Your task to perform on an android device: open app "Reddit" (install if not already installed) Image 0: 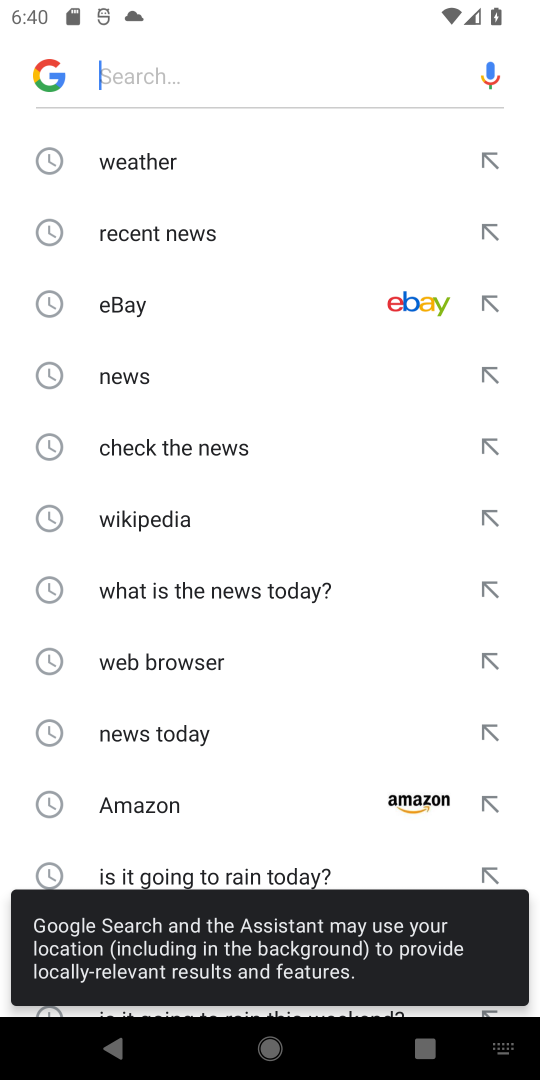
Step 0: press home button
Your task to perform on an android device: open app "Reddit" (install if not already installed) Image 1: 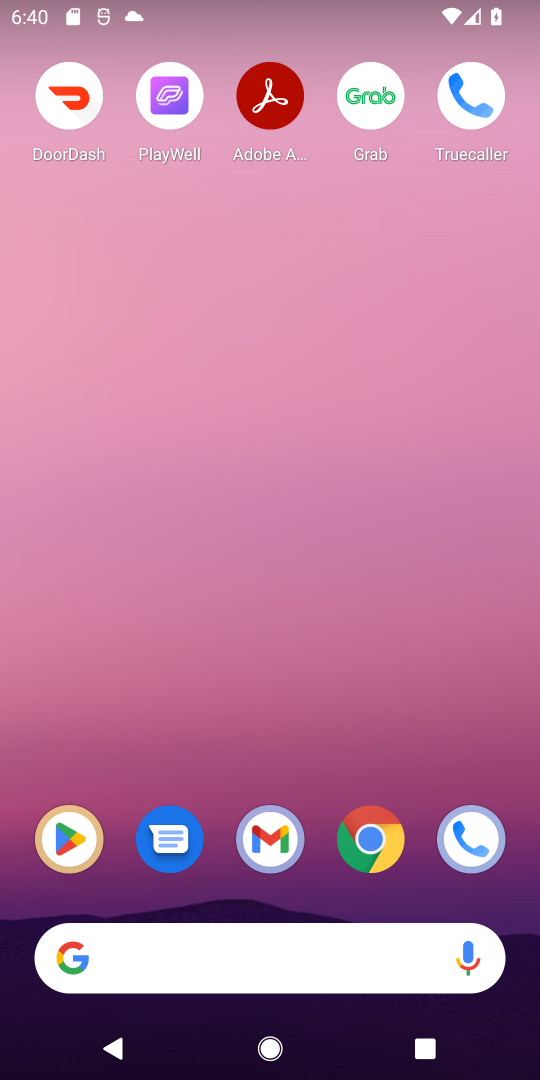
Step 1: click (88, 830)
Your task to perform on an android device: open app "Reddit" (install if not already installed) Image 2: 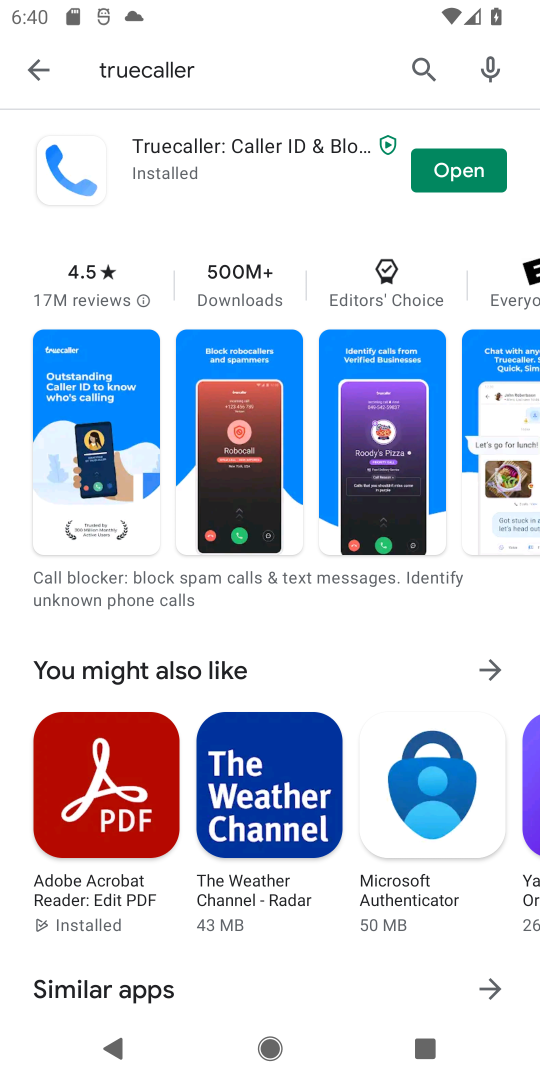
Step 2: click (193, 59)
Your task to perform on an android device: open app "Reddit" (install if not already installed) Image 3: 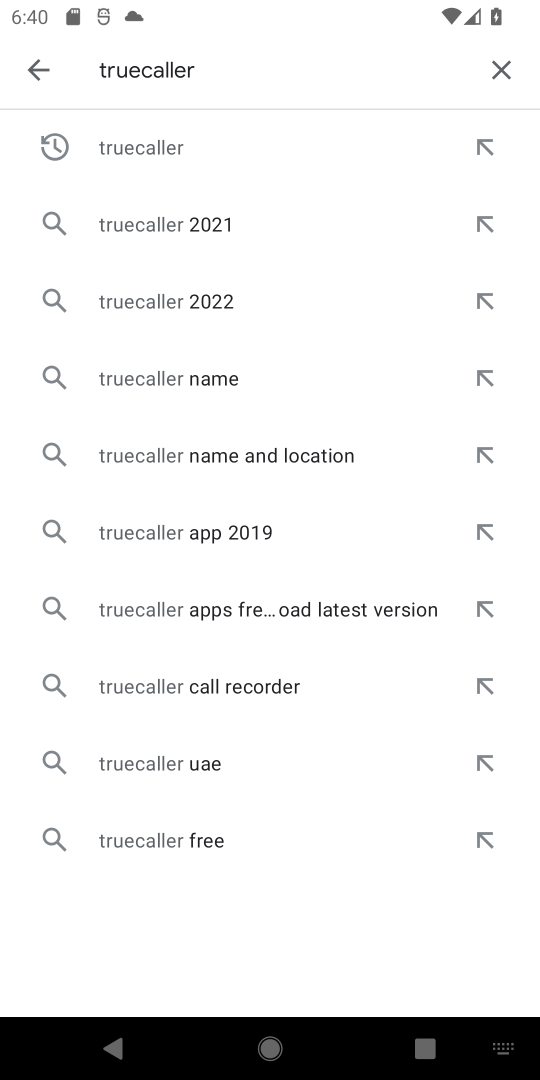
Step 3: click (508, 67)
Your task to perform on an android device: open app "Reddit" (install if not already installed) Image 4: 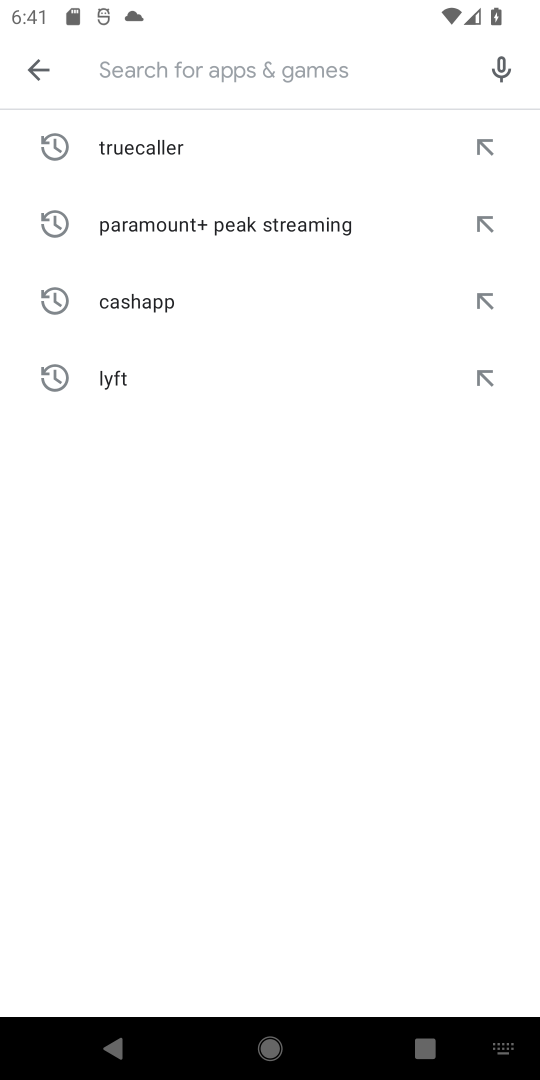
Step 4: type "reddit"
Your task to perform on an android device: open app "Reddit" (install if not already installed) Image 5: 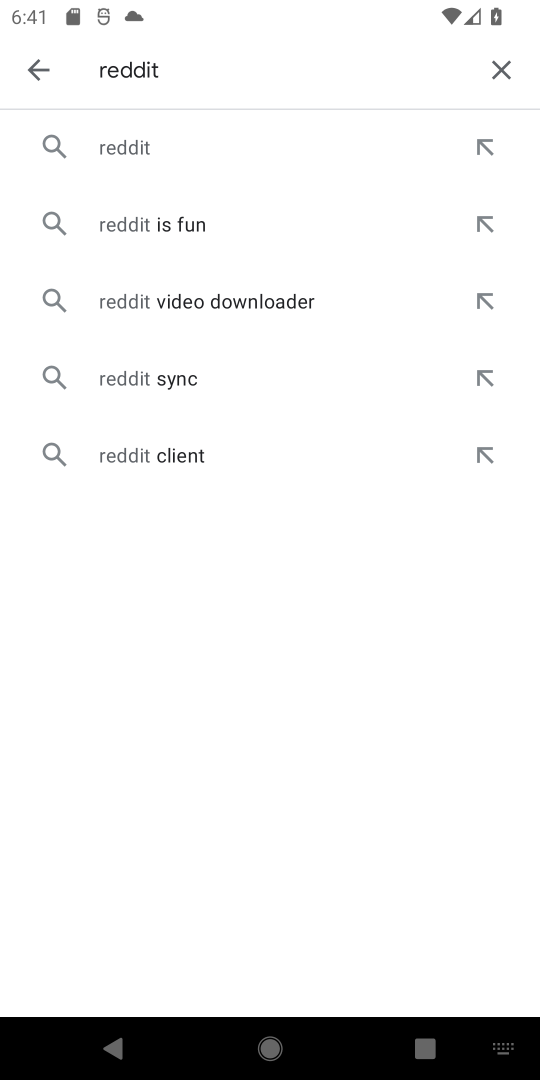
Step 5: click (156, 138)
Your task to perform on an android device: open app "Reddit" (install if not already installed) Image 6: 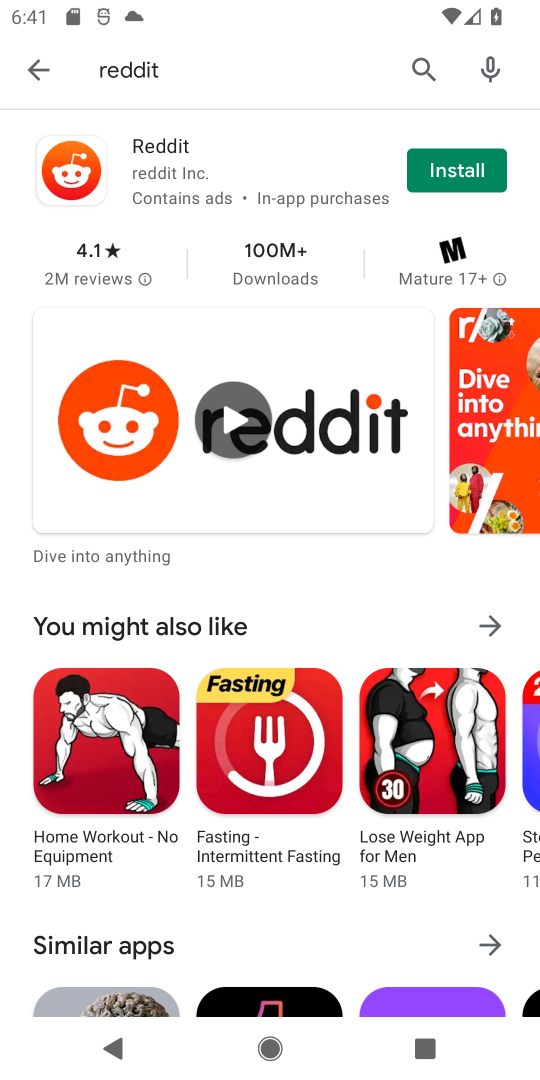
Step 6: click (465, 174)
Your task to perform on an android device: open app "Reddit" (install if not already installed) Image 7: 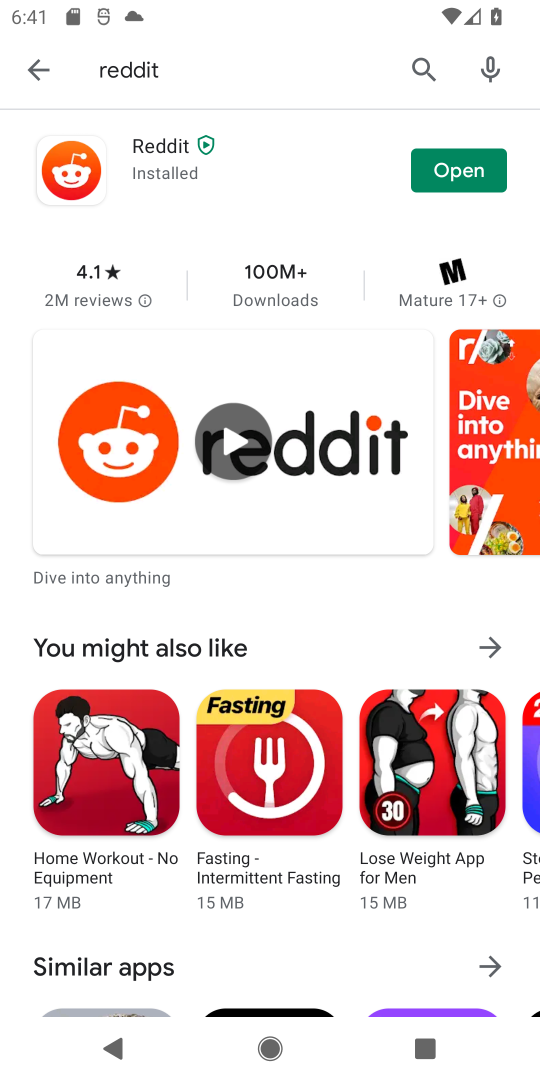
Step 7: click (451, 170)
Your task to perform on an android device: open app "Reddit" (install if not already installed) Image 8: 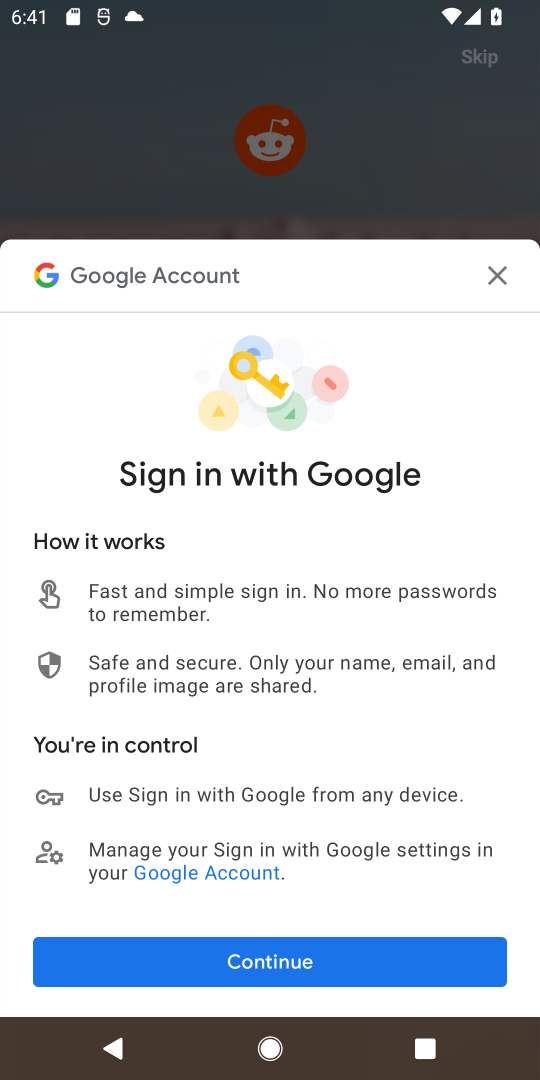
Step 8: click (280, 960)
Your task to perform on an android device: open app "Reddit" (install if not already installed) Image 9: 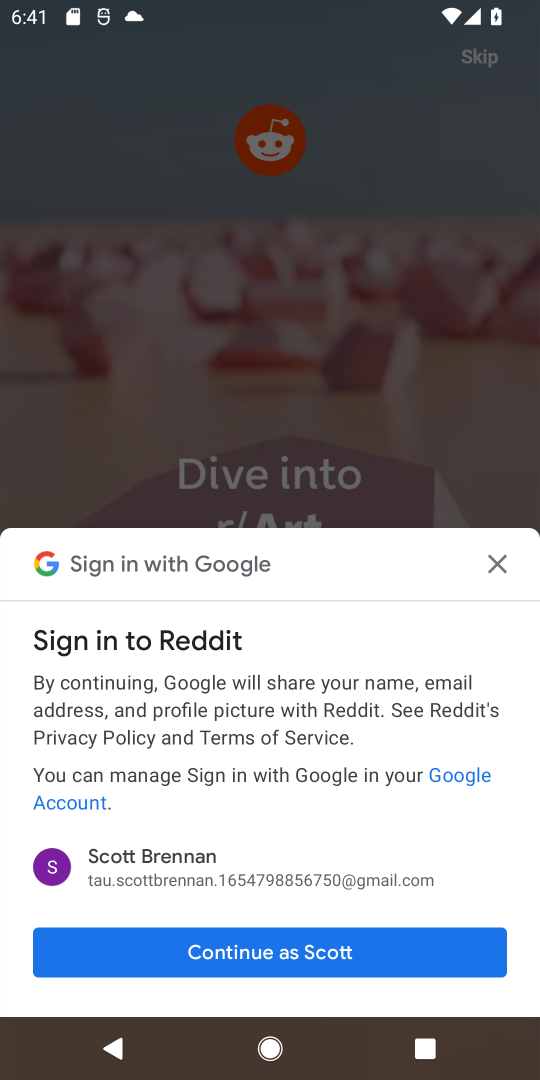
Step 9: click (500, 560)
Your task to perform on an android device: open app "Reddit" (install if not already installed) Image 10: 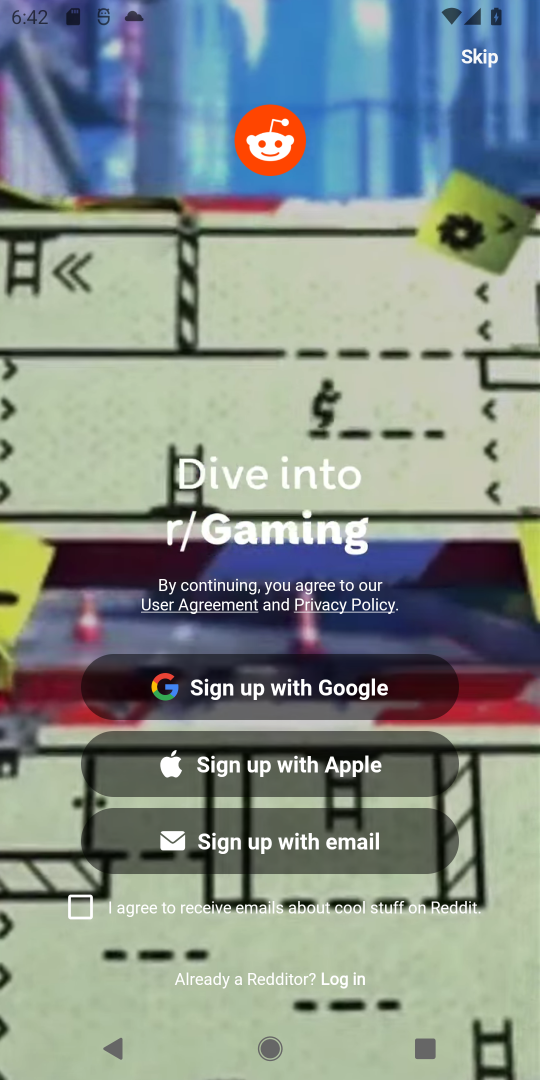
Step 10: task complete